Your task to perform on an android device: Open the calendar and show me this week's events Image 0: 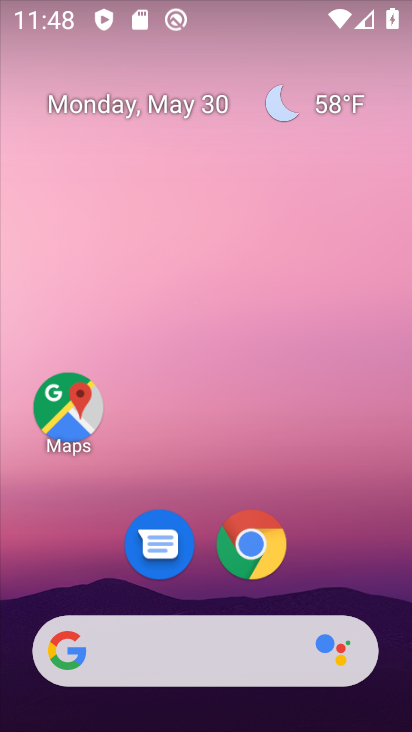
Step 0: drag from (350, 615) to (307, 127)
Your task to perform on an android device: Open the calendar and show me this week's events Image 1: 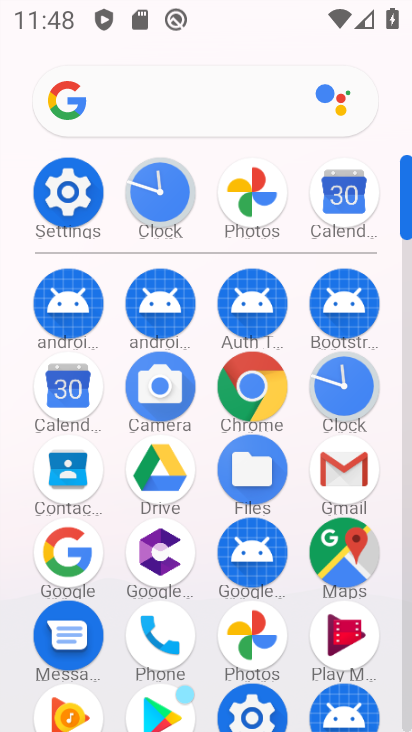
Step 1: click (362, 230)
Your task to perform on an android device: Open the calendar and show me this week's events Image 2: 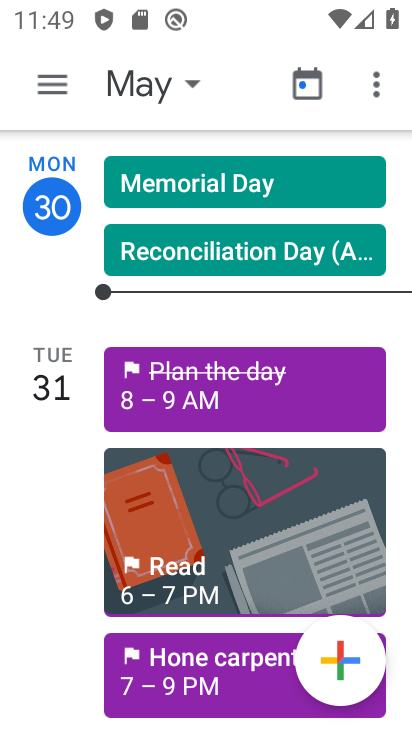
Step 2: task complete